Your task to perform on an android device: What's on my calendar tomorrow? Image 0: 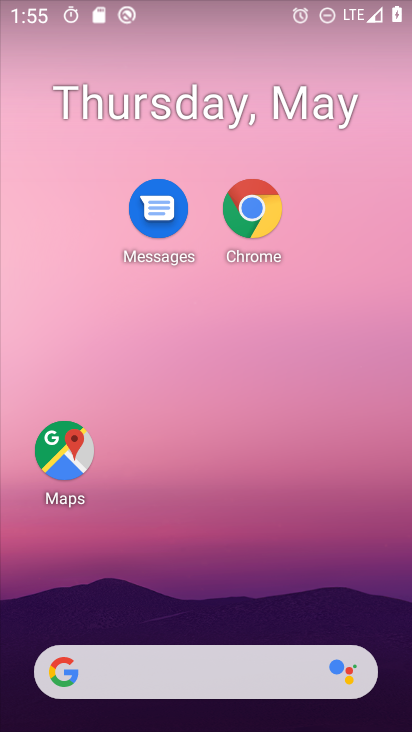
Step 0: drag from (199, 569) to (262, 126)
Your task to perform on an android device: What's on my calendar tomorrow? Image 1: 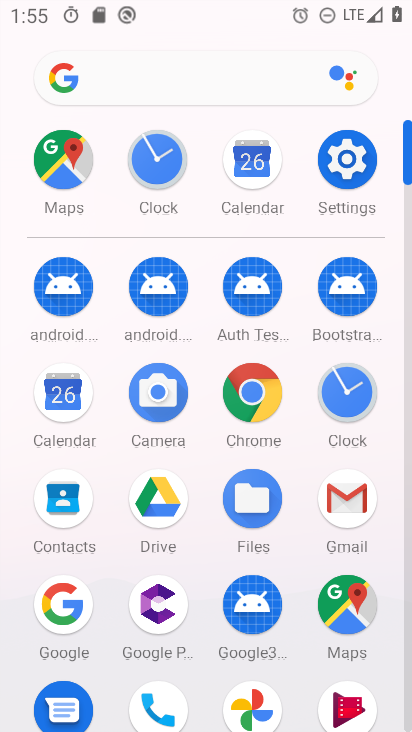
Step 1: click (50, 430)
Your task to perform on an android device: What's on my calendar tomorrow? Image 2: 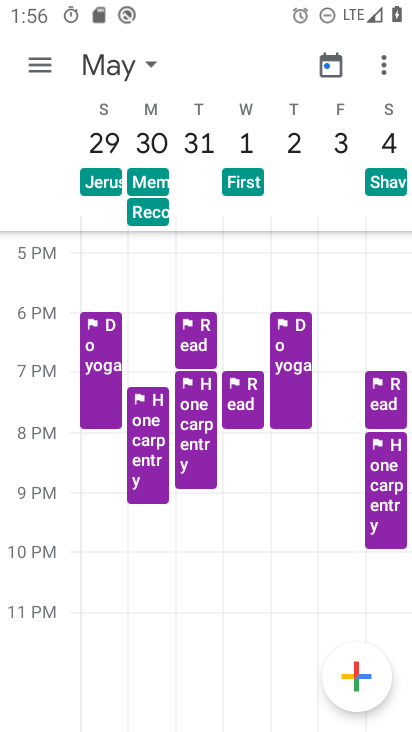
Step 2: click (133, 75)
Your task to perform on an android device: What's on my calendar tomorrow? Image 3: 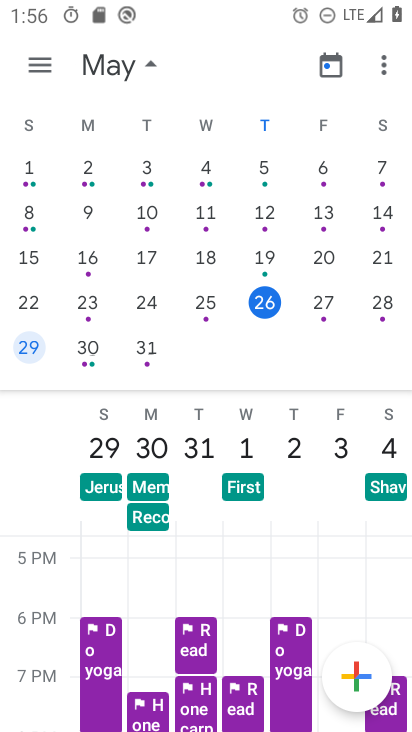
Step 3: click (119, 72)
Your task to perform on an android device: What's on my calendar tomorrow? Image 4: 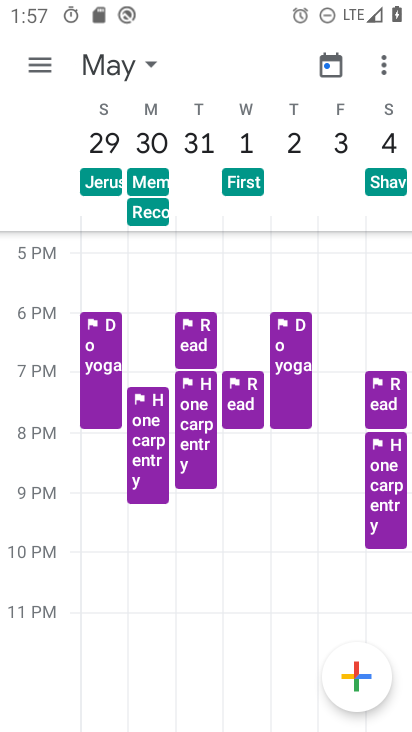
Step 4: click (92, 66)
Your task to perform on an android device: What's on my calendar tomorrow? Image 5: 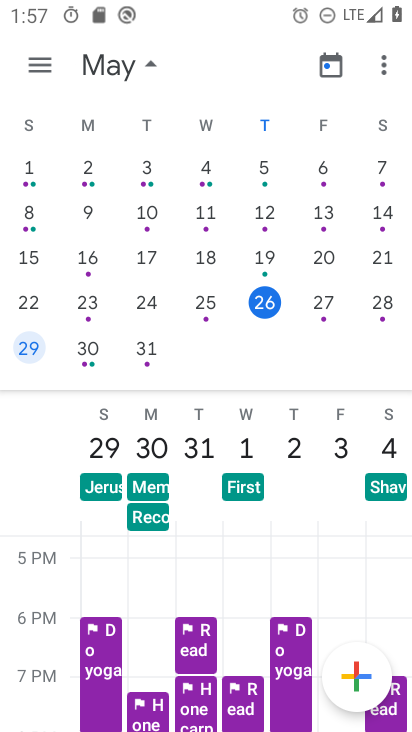
Step 5: click (122, 71)
Your task to perform on an android device: What's on my calendar tomorrow? Image 6: 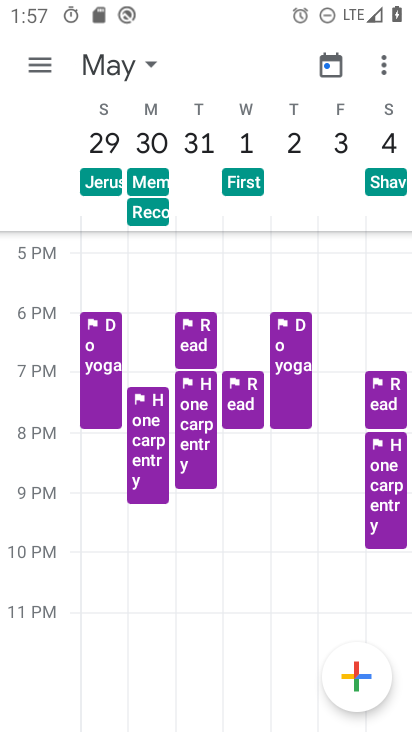
Step 6: click (122, 71)
Your task to perform on an android device: What's on my calendar tomorrow? Image 7: 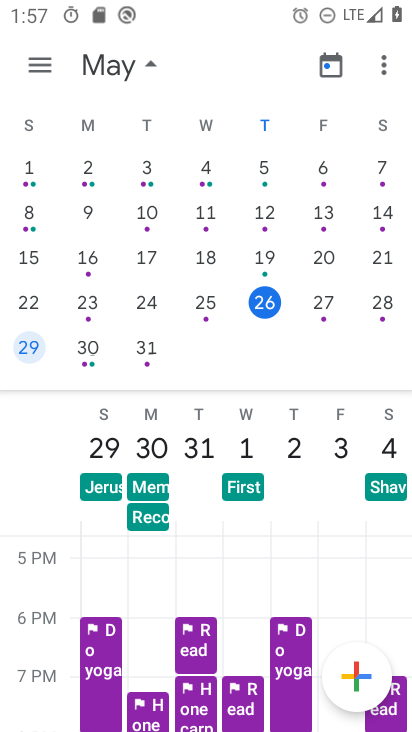
Step 7: click (326, 311)
Your task to perform on an android device: What's on my calendar tomorrow? Image 8: 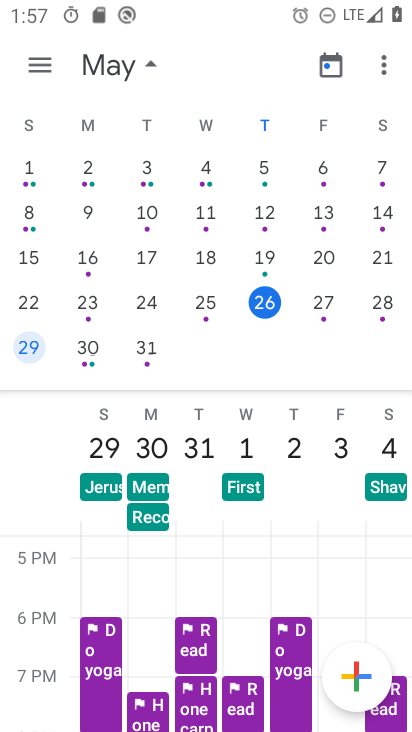
Step 8: click (328, 301)
Your task to perform on an android device: What's on my calendar tomorrow? Image 9: 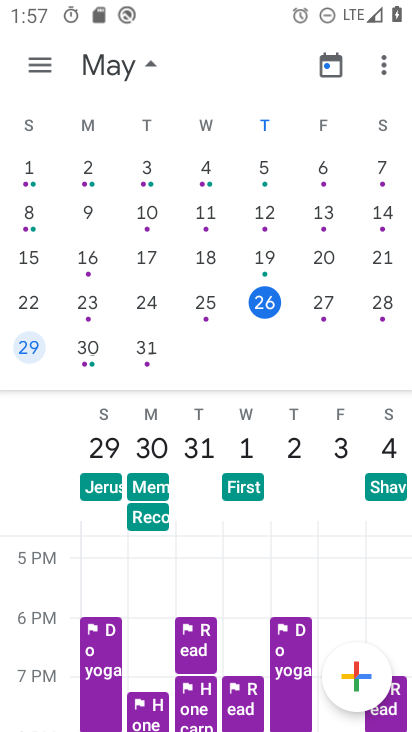
Step 9: click (324, 304)
Your task to perform on an android device: What's on my calendar tomorrow? Image 10: 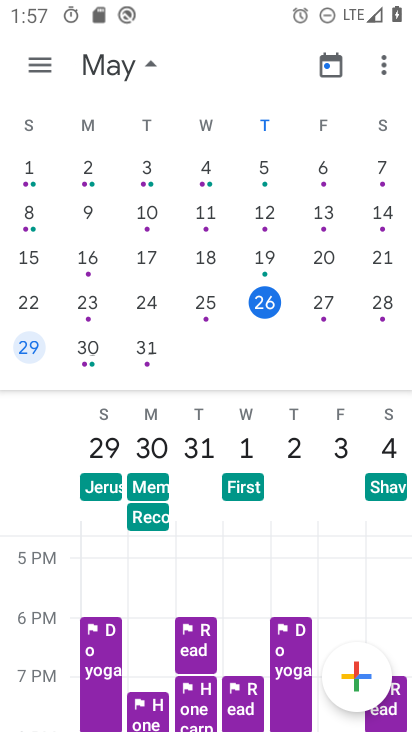
Step 10: click (324, 304)
Your task to perform on an android device: What's on my calendar tomorrow? Image 11: 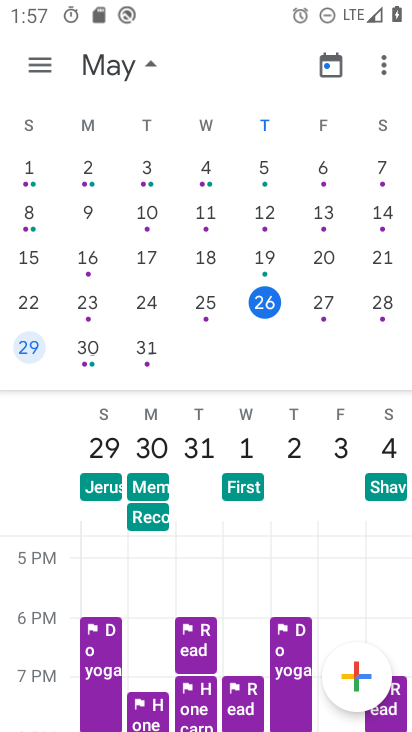
Step 11: click (325, 303)
Your task to perform on an android device: What's on my calendar tomorrow? Image 12: 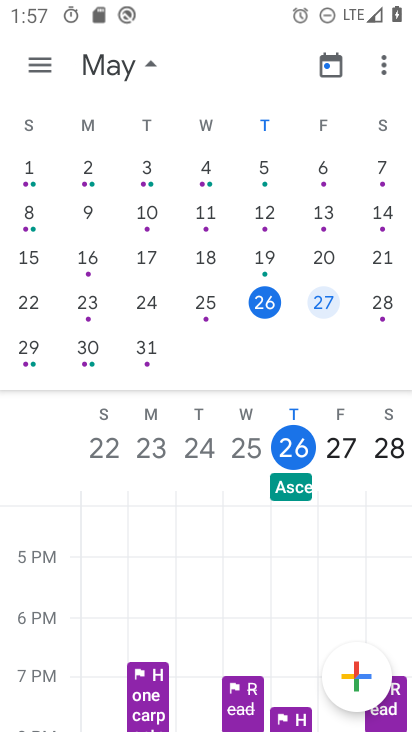
Step 12: click (325, 303)
Your task to perform on an android device: What's on my calendar tomorrow? Image 13: 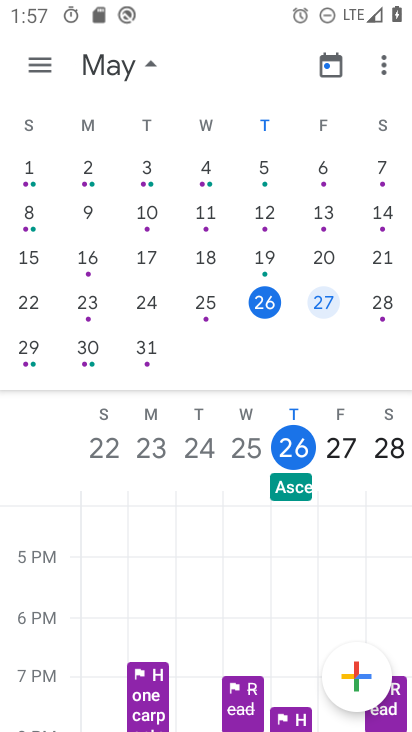
Step 13: click (325, 303)
Your task to perform on an android device: What's on my calendar tomorrow? Image 14: 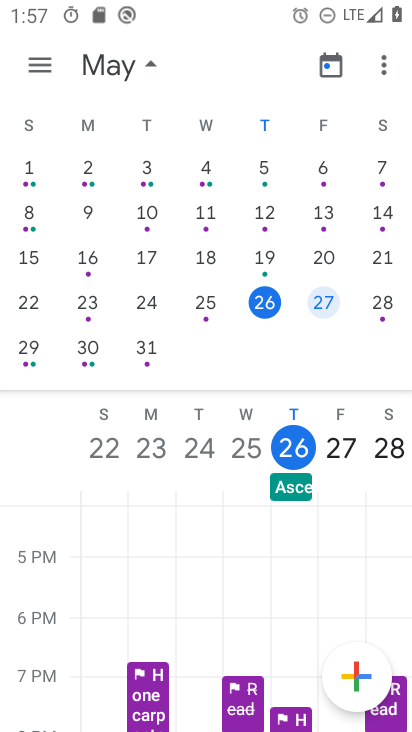
Step 14: click (36, 68)
Your task to perform on an android device: What's on my calendar tomorrow? Image 15: 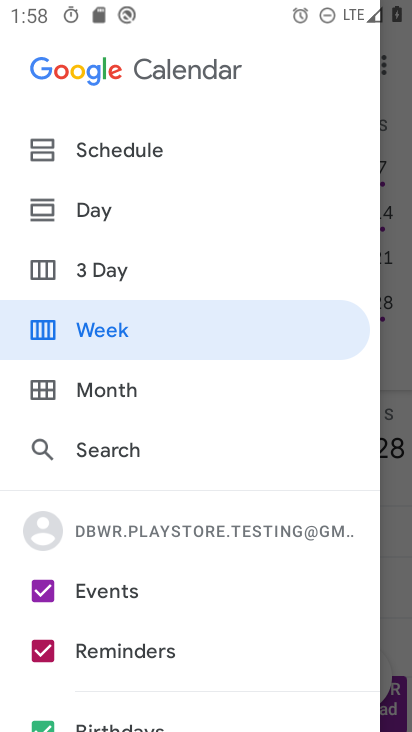
Step 15: click (117, 153)
Your task to perform on an android device: What's on my calendar tomorrow? Image 16: 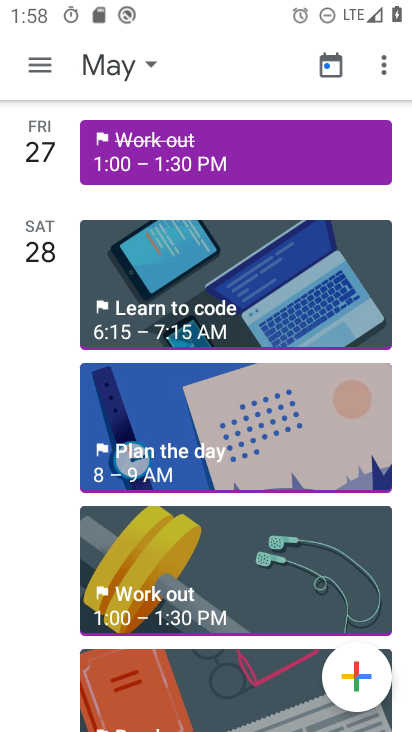
Step 16: task complete